Your task to perform on an android device: See recent photos Image 0: 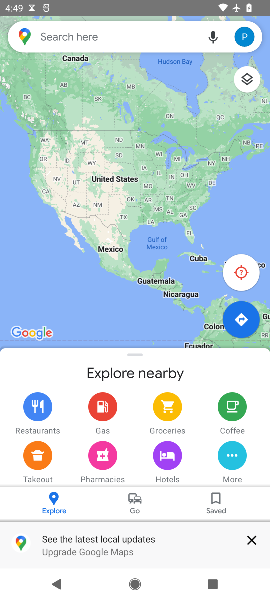
Step 0: press home button
Your task to perform on an android device: See recent photos Image 1: 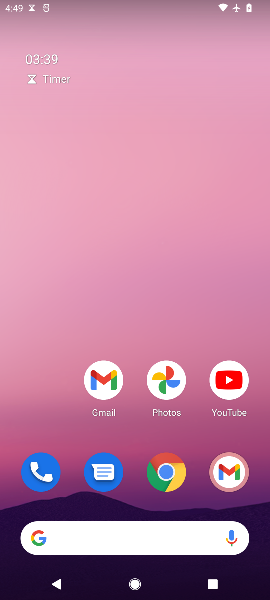
Step 1: drag from (149, 500) to (187, 126)
Your task to perform on an android device: See recent photos Image 2: 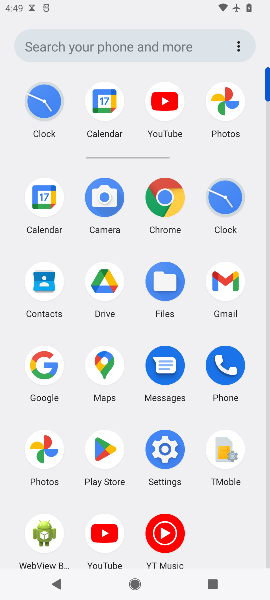
Step 2: drag from (128, 482) to (130, 292)
Your task to perform on an android device: See recent photos Image 3: 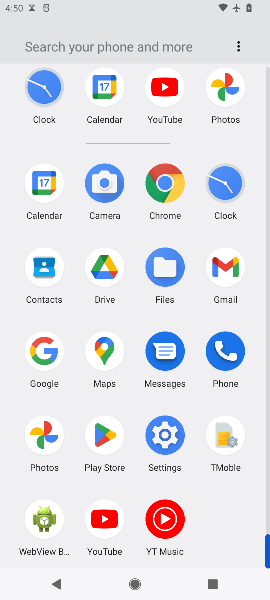
Step 3: click (38, 440)
Your task to perform on an android device: See recent photos Image 4: 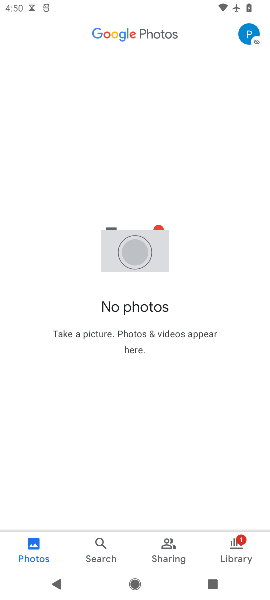
Step 4: click (69, 354)
Your task to perform on an android device: See recent photos Image 5: 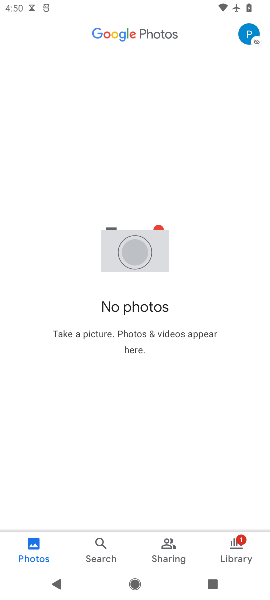
Step 5: task complete